Your task to perform on an android device: change timer sound Image 0: 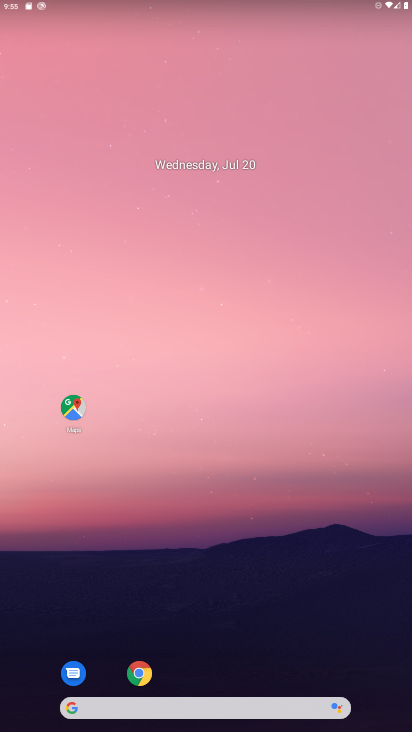
Step 0: drag from (196, 611) to (219, 90)
Your task to perform on an android device: change timer sound Image 1: 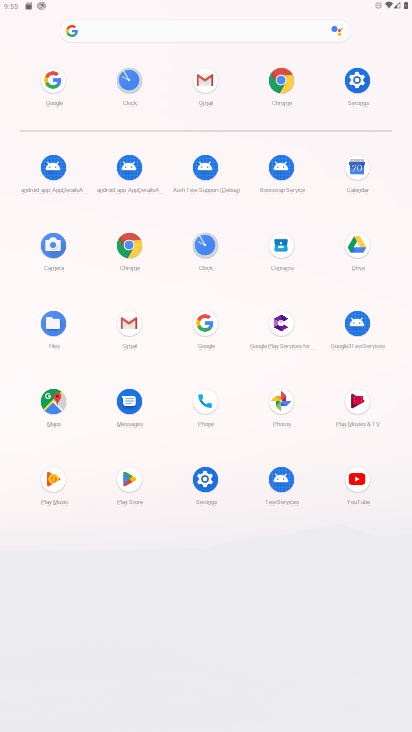
Step 1: click (190, 477)
Your task to perform on an android device: change timer sound Image 2: 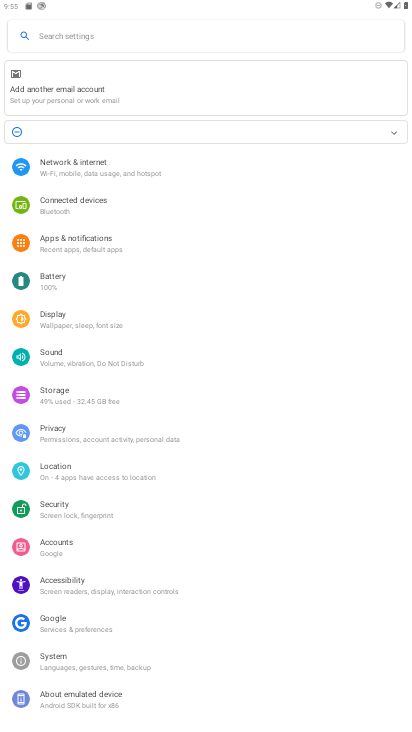
Step 2: press home button
Your task to perform on an android device: change timer sound Image 3: 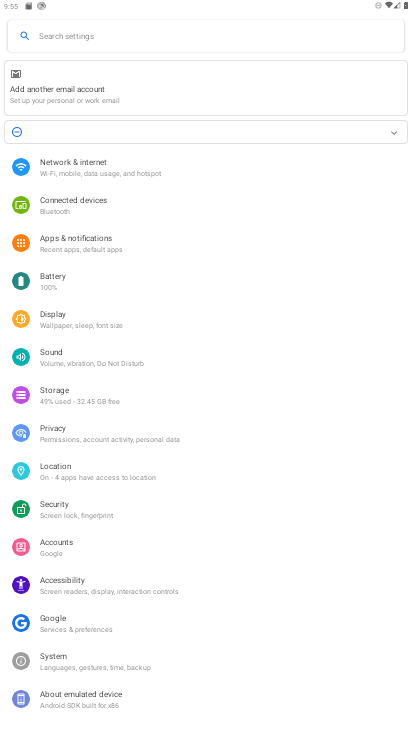
Step 3: press home button
Your task to perform on an android device: change timer sound Image 4: 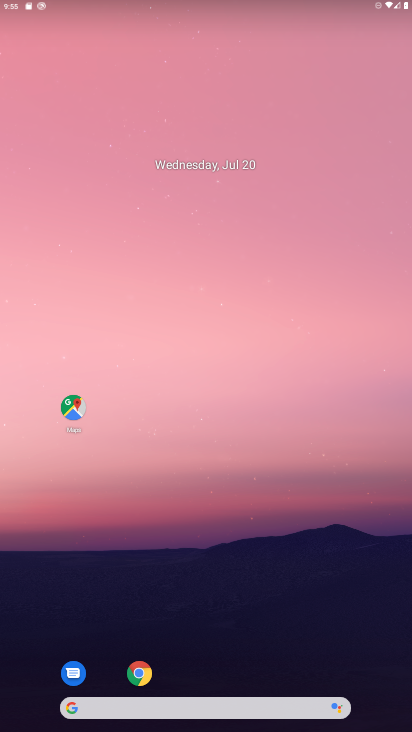
Step 4: drag from (133, 624) to (238, 67)
Your task to perform on an android device: change timer sound Image 5: 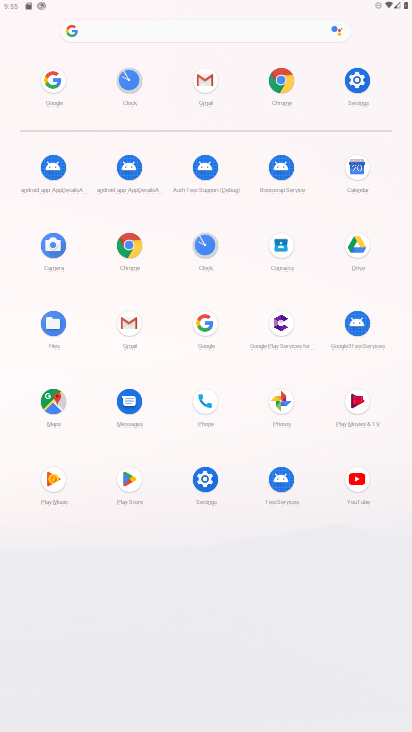
Step 5: click (203, 243)
Your task to perform on an android device: change timer sound Image 6: 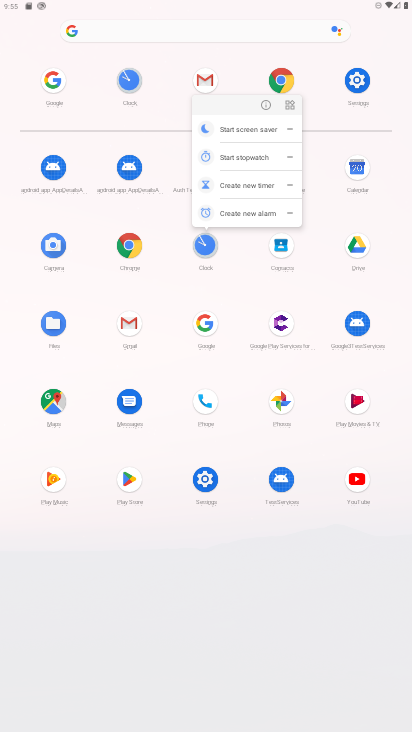
Step 6: click (260, 100)
Your task to perform on an android device: change timer sound Image 7: 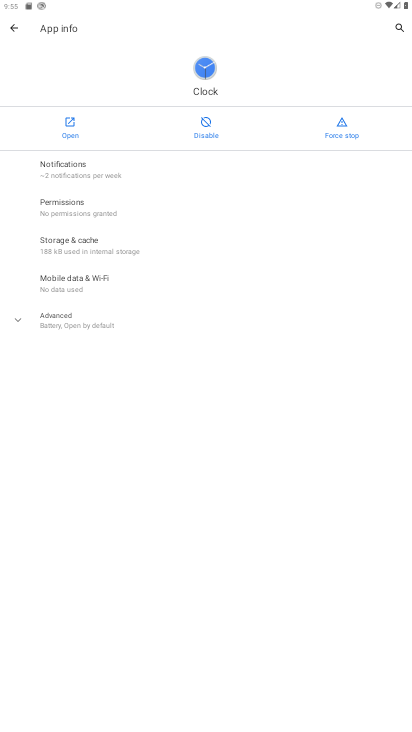
Step 7: click (65, 115)
Your task to perform on an android device: change timer sound Image 8: 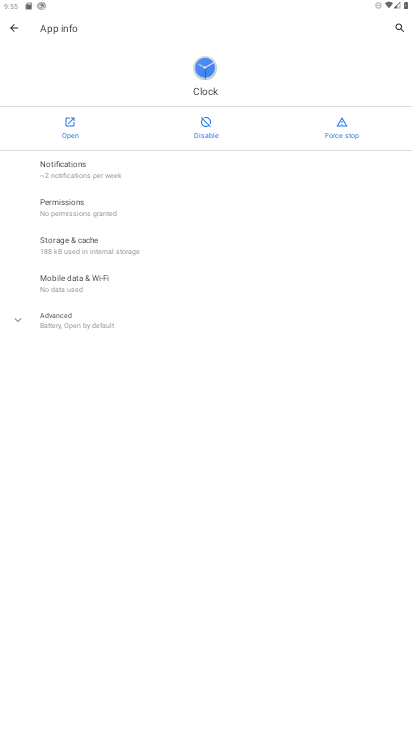
Step 8: click (65, 115)
Your task to perform on an android device: change timer sound Image 9: 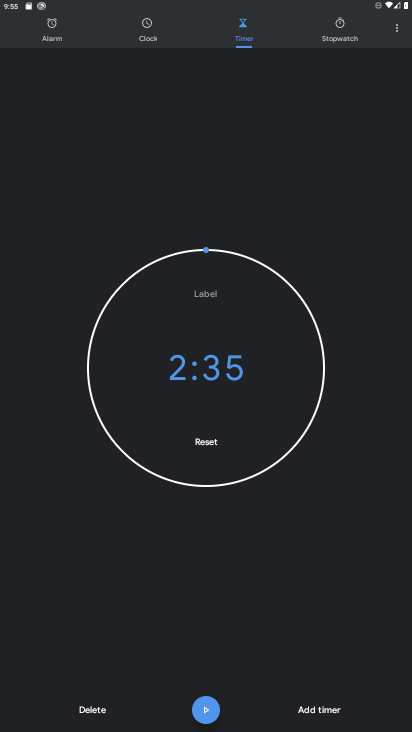
Step 9: drag from (399, 30) to (338, 56)
Your task to perform on an android device: change timer sound Image 10: 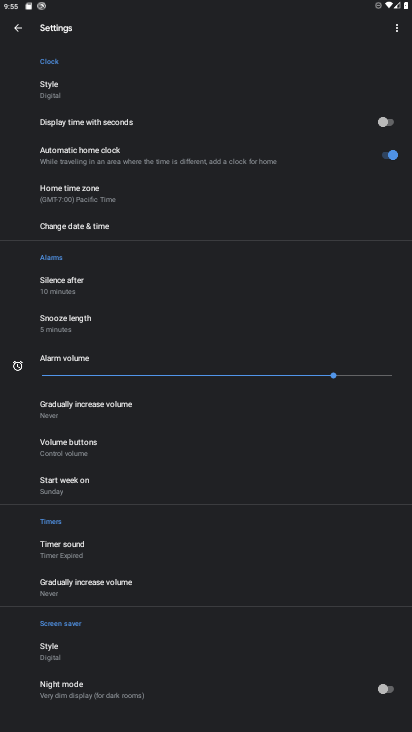
Step 10: click (93, 564)
Your task to perform on an android device: change timer sound Image 11: 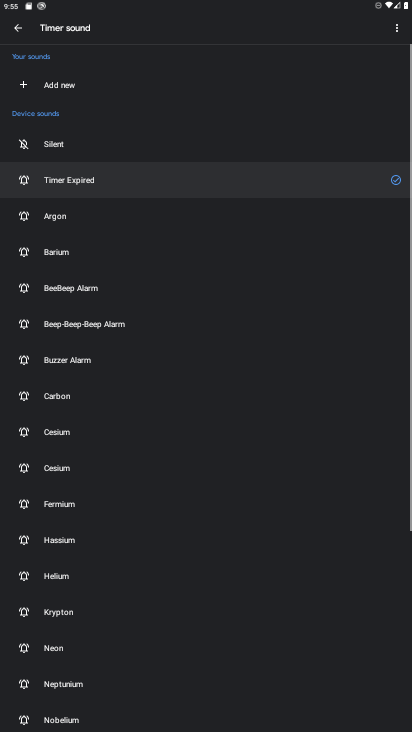
Step 11: drag from (292, 597) to (314, 341)
Your task to perform on an android device: change timer sound Image 12: 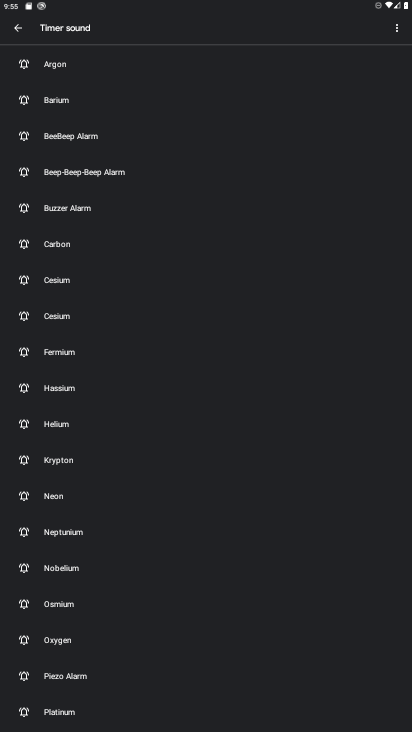
Step 12: click (85, 282)
Your task to perform on an android device: change timer sound Image 13: 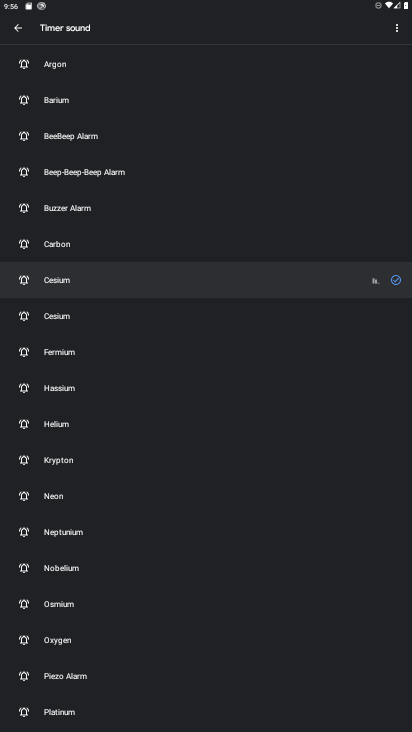
Step 13: task complete